Your task to perform on an android device: Go to Amazon Image 0: 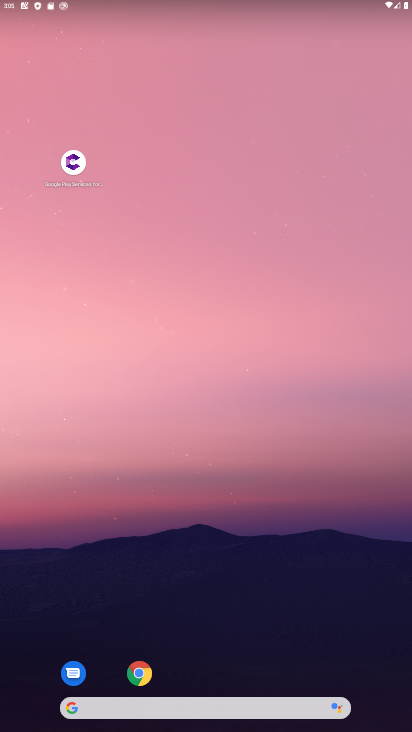
Step 0: click (138, 671)
Your task to perform on an android device: Go to Amazon Image 1: 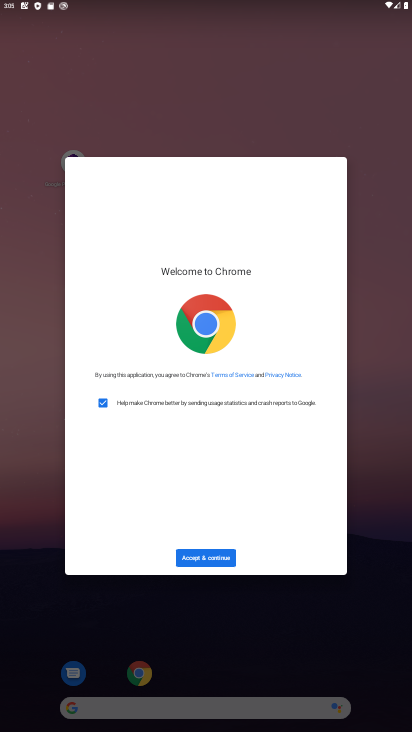
Step 1: click (206, 558)
Your task to perform on an android device: Go to Amazon Image 2: 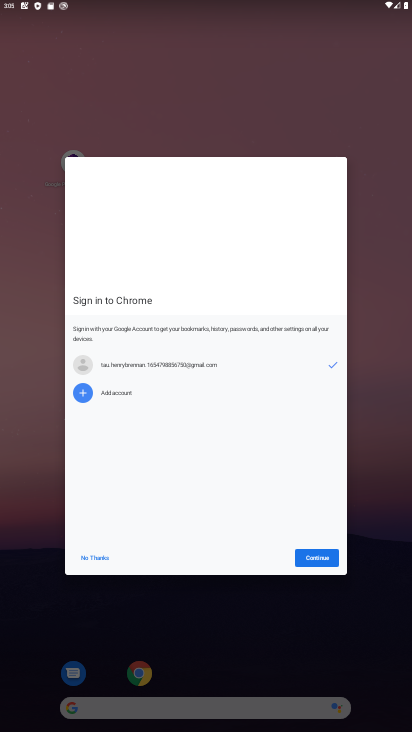
Step 2: click (315, 555)
Your task to perform on an android device: Go to Amazon Image 3: 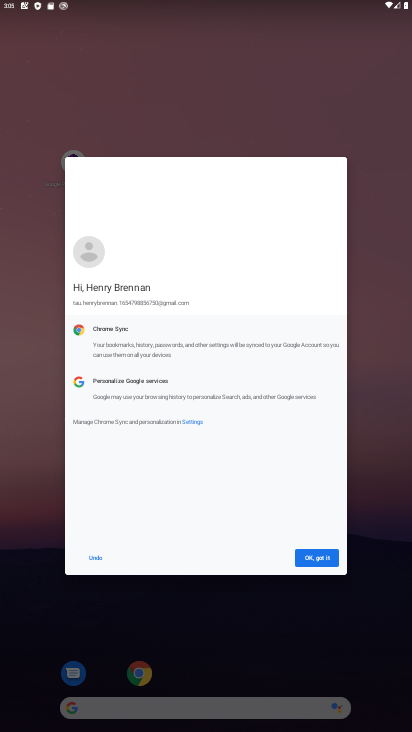
Step 3: click (315, 555)
Your task to perform on an android device: Go to Amazon Image 4: 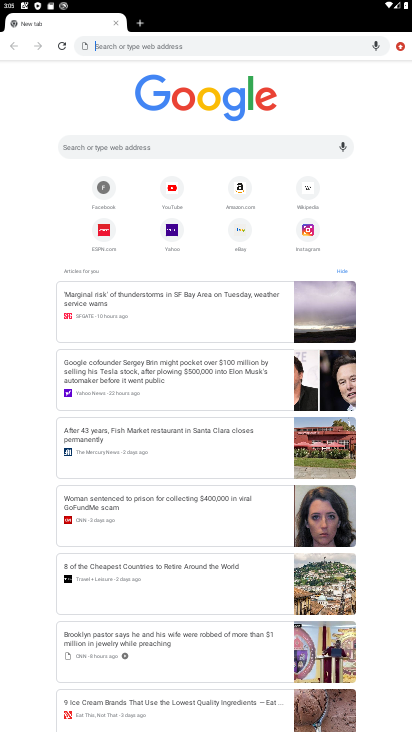
Step 4: click (238, 190)
Your task to perform on an android device: Go to Amazon Image 5: 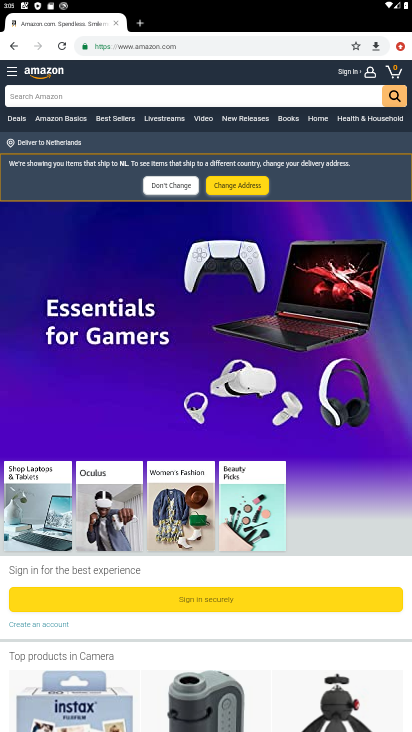
Step 5: task complete